Your task to perform on an android device: turn on airplane mode Image 0: 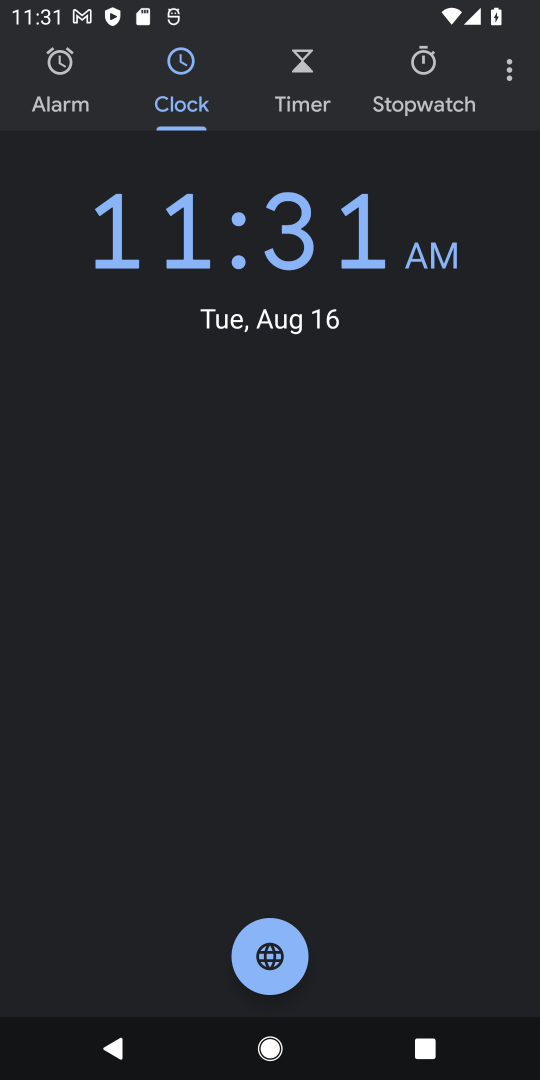
Step 0: press home button
Your task to perform on an android device: turn on airplane mode Image 1: 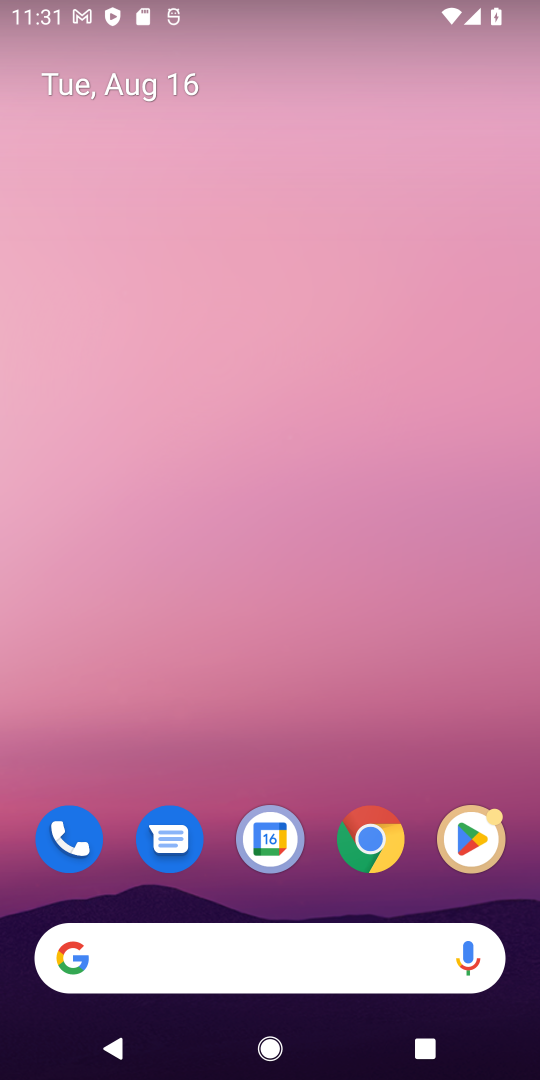
Step 1: drag from (230, 910) to (318, 24)
Your task to perform on an android device: turn on airplane mode Image 2: 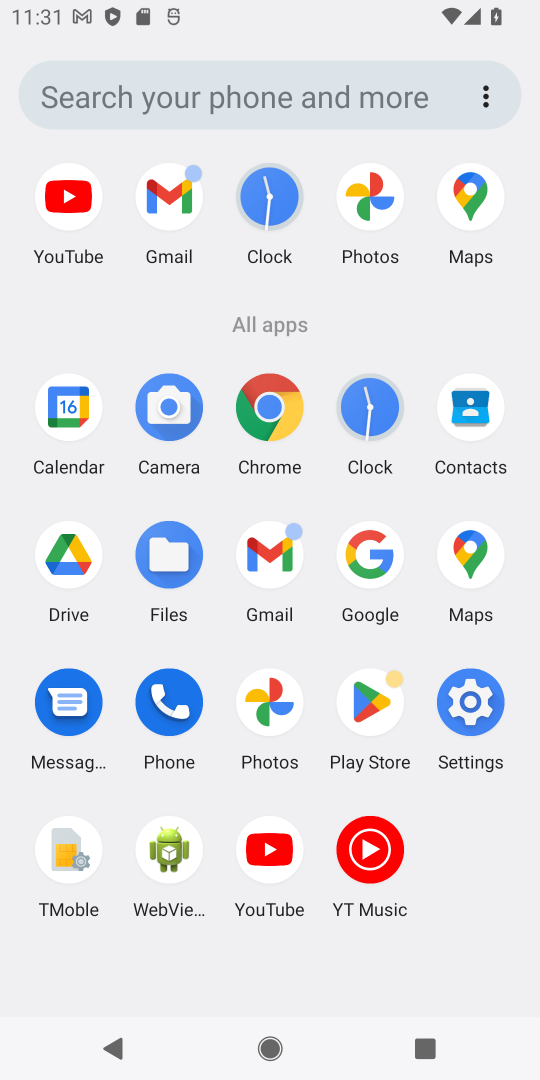
Step 2: click (473, 740)
Your task to perform on an android device: turn on airplane mode Image 3: 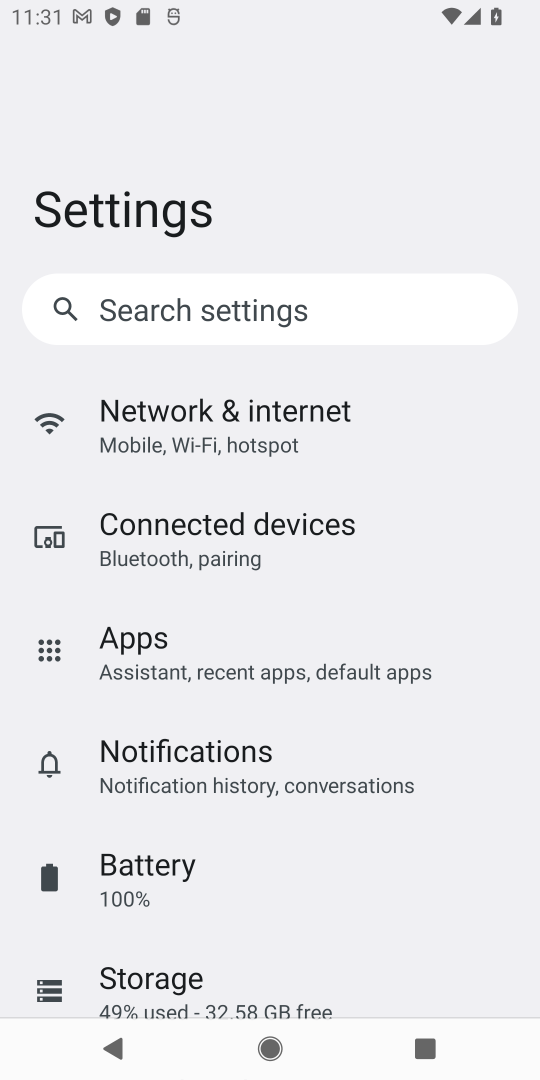
Step 3: click (182, 430)
Your task to perform on an android device: turn on airplane mode Image 4: 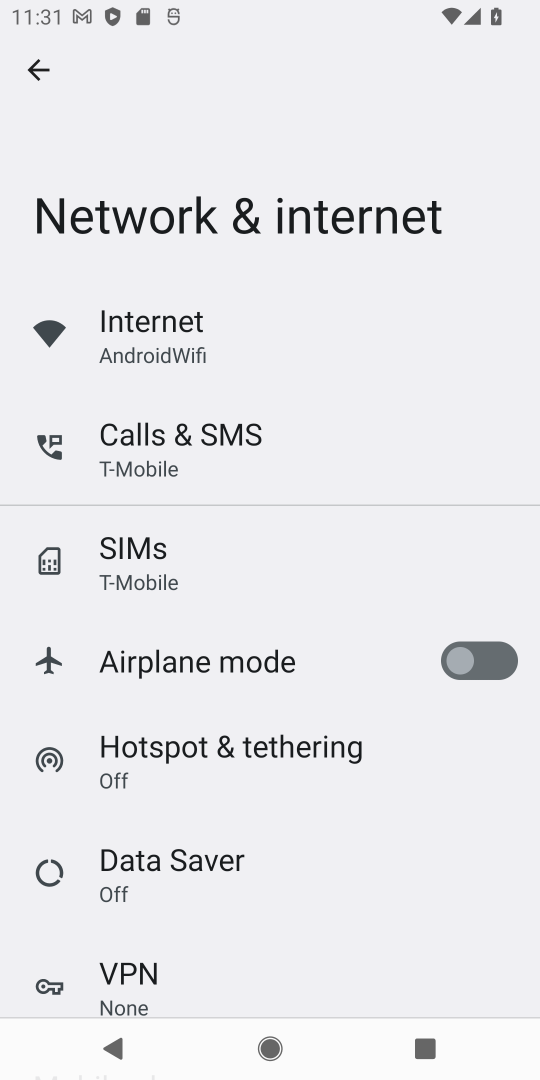
Step 4: click (508, 664)
Your task to perform on an android device: turn on airplane mode Image 5: 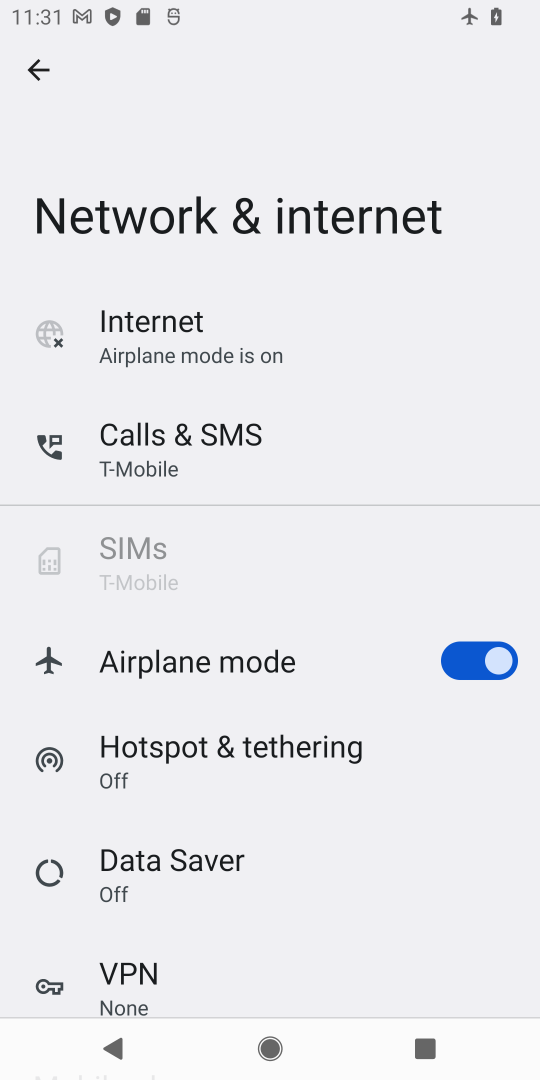
Step 5: task complete